Your task to perform on an android device: find which apps use the phone's location Image 0: 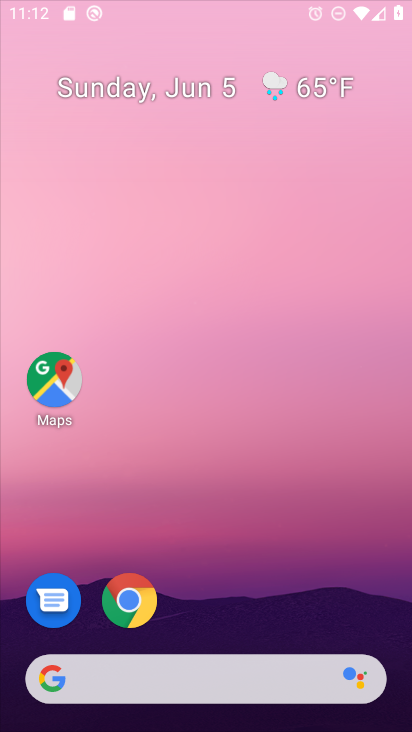
Step 0: press home button
Your task to perform on an android device: find which apps use the phone's location Image 1: 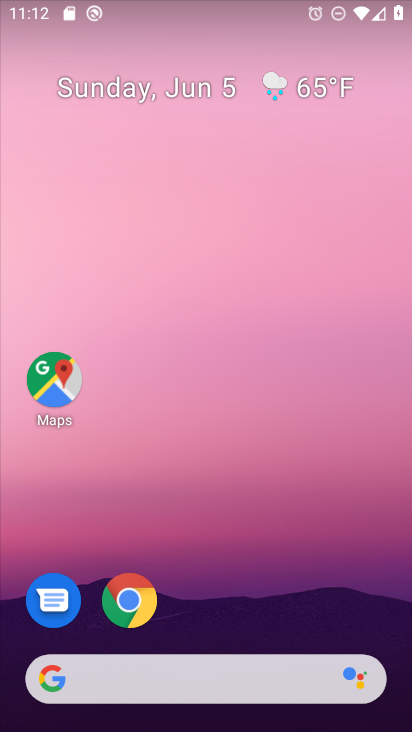
Step 1: drag from (374, 611) to (259, 60)
Your task to perform on an android device: find which apps use the phone's location Image 2: 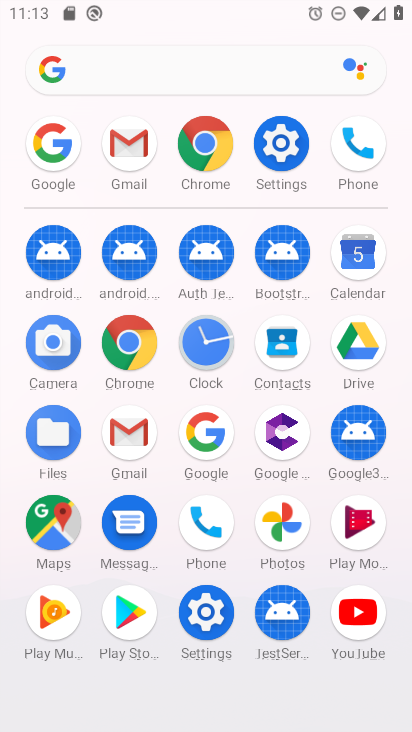
Step 2: click (264, 166)
Your task to perform on an android device: find which apps use the phone's location Image 3: 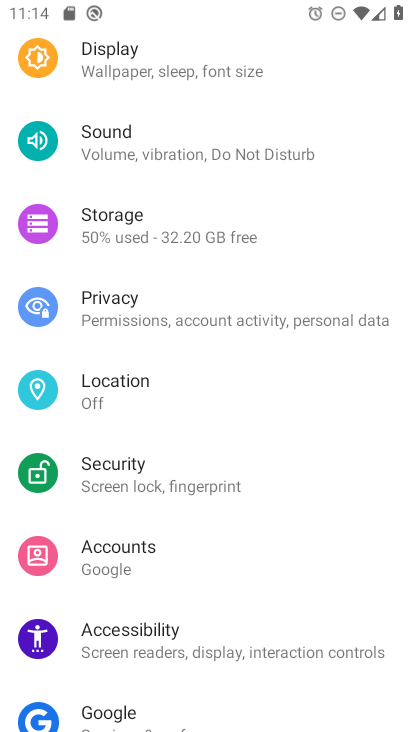
Step 3: click (135, 375)
Your task to perform on an android device: find which apps use the phone's location Image 4: 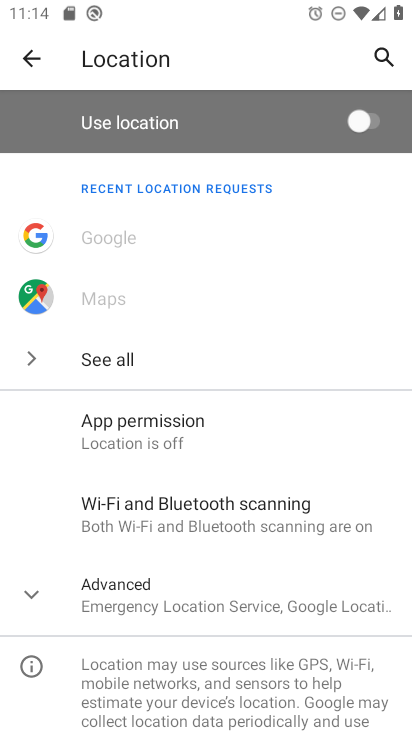
Step 4: click (198, 442)
Your task to perform on an android device: find which apps use the phone's location Image 5: 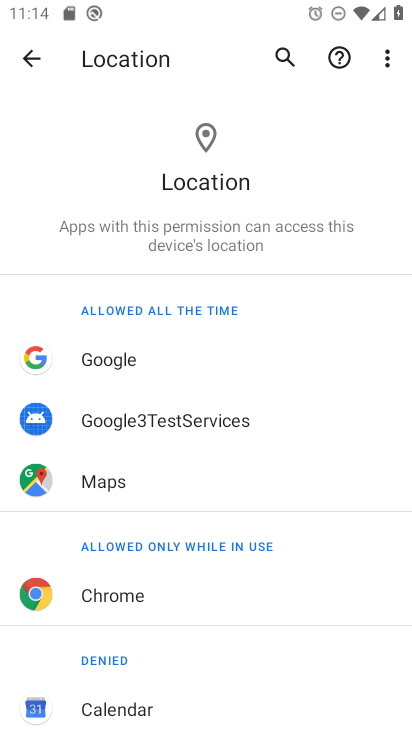
Step 5: click (169, 661)
Your task to perform on an android device: find which apps use the phone's location Image 6: 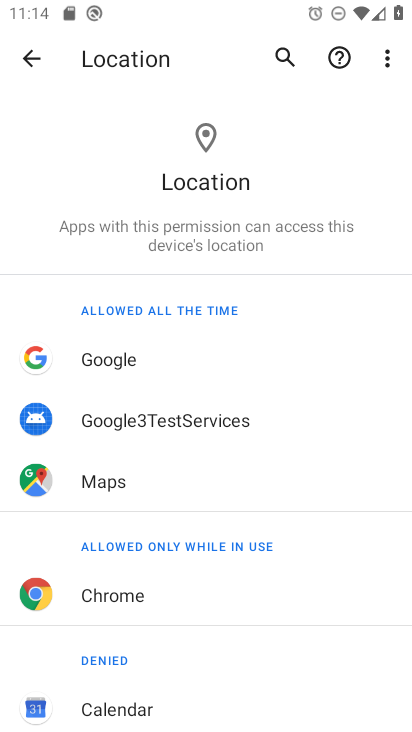
Step 6: click (141, 209)
Your task to perform on an android device: find which apps use the phone's location Image 7: 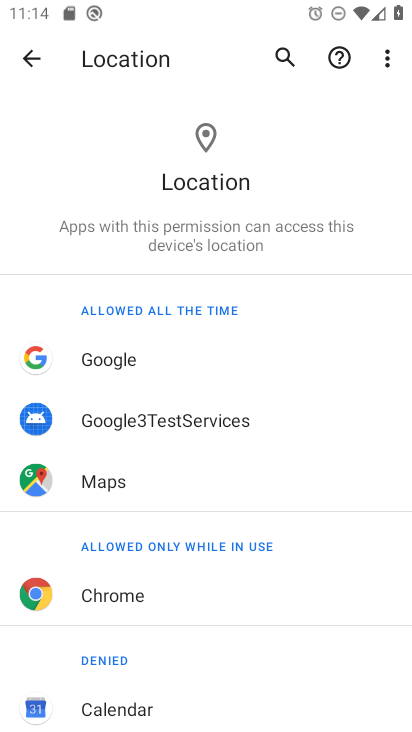
Step 7: drag from (113, 531) to (23, 70)
Your task to perform on an android device: find which apps use the phone's location Image 8: 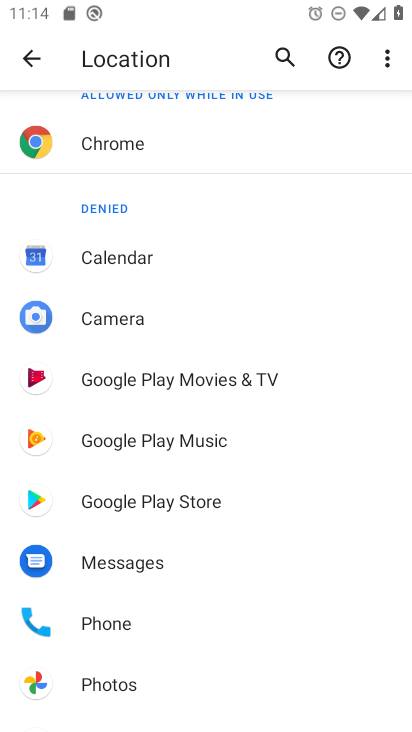
Step 8: click (128, 594)
Your task to perform on an android device: find which apps use the phone's location Image 9: 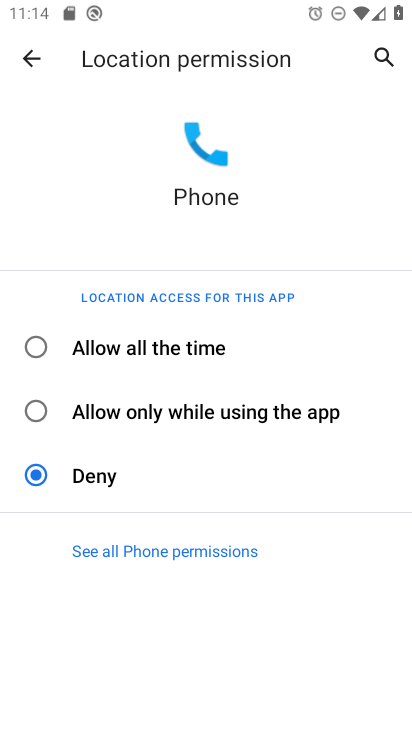
Step 9: click (41, 337)
Your task to perform on an android device: find which apps use the phone's location Image 10: 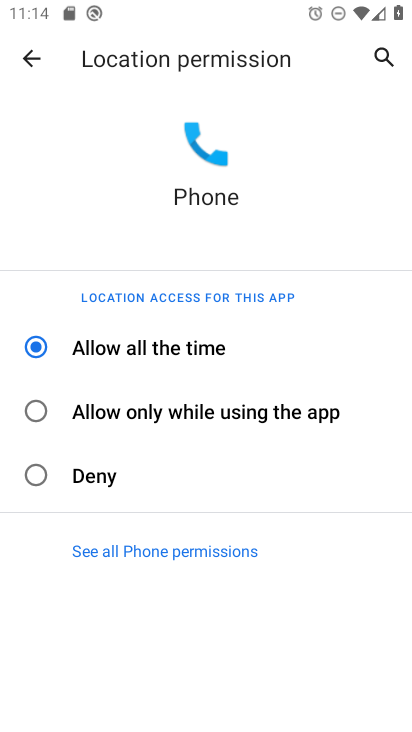
Step 10: task complete